Your task to perform on an android device: refresh tabs in the chrome app Image 0: 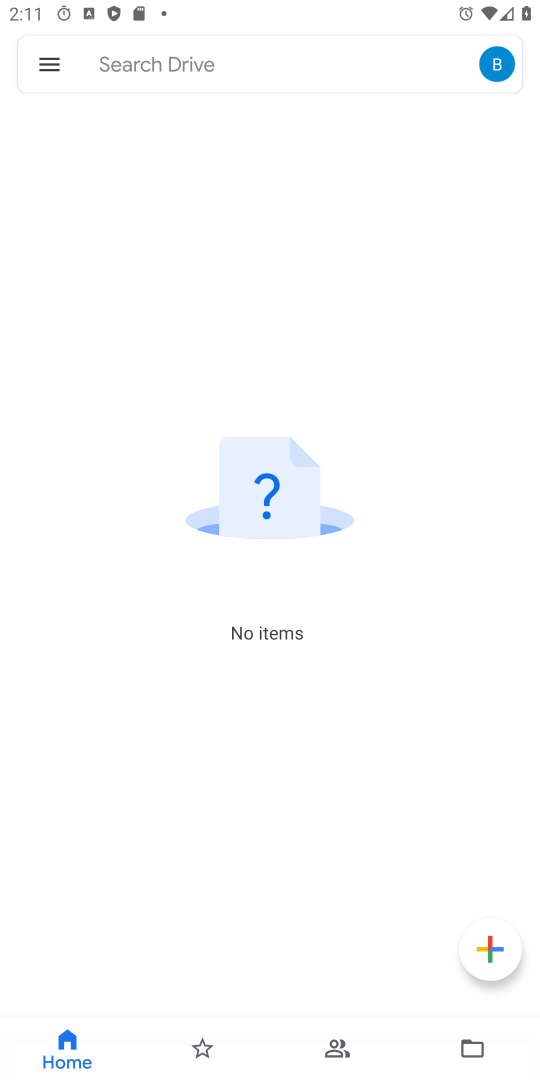
Step 0: press home button
Your task to perform on an android device: refresh tabs in the chrome app Image 1: 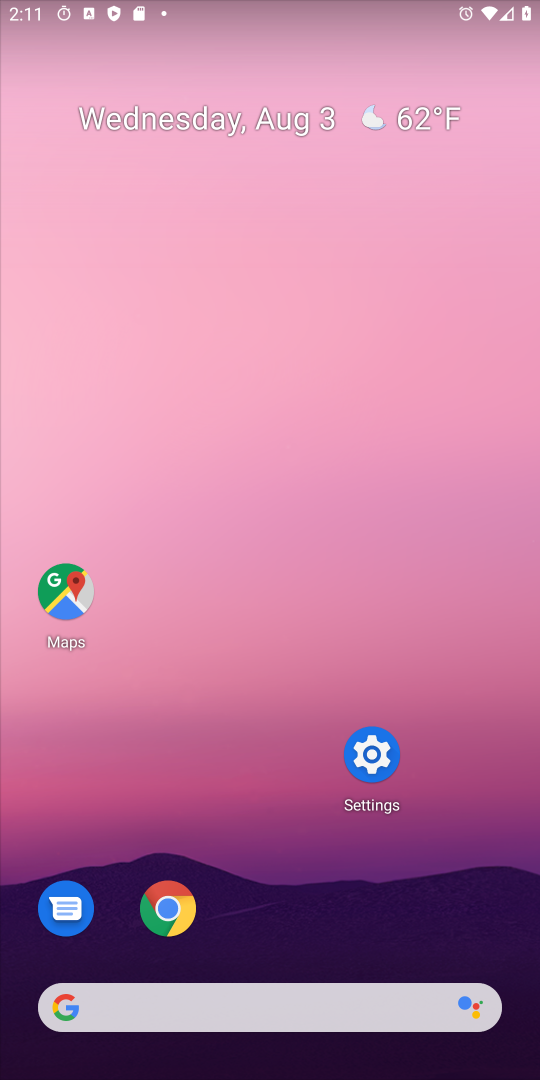
Step 1: drag from (224, 867) to (210, 192)
Your task to perform on an android device: refresh tabs in the chrome app Image 2: 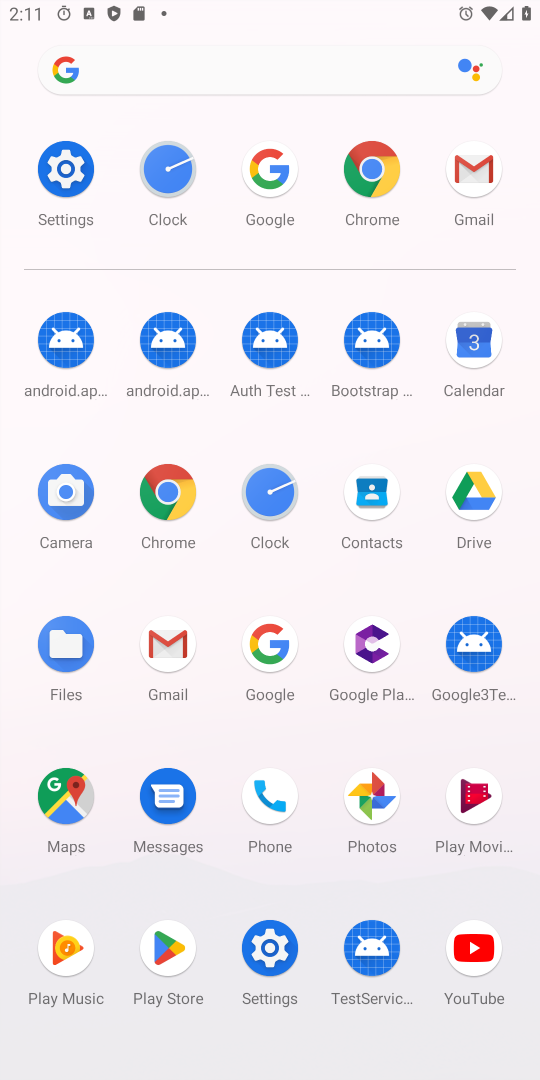
Step 2: click (165, 516)
Your task to perform on an android device: refresh tabs in the chrome app Image 3: 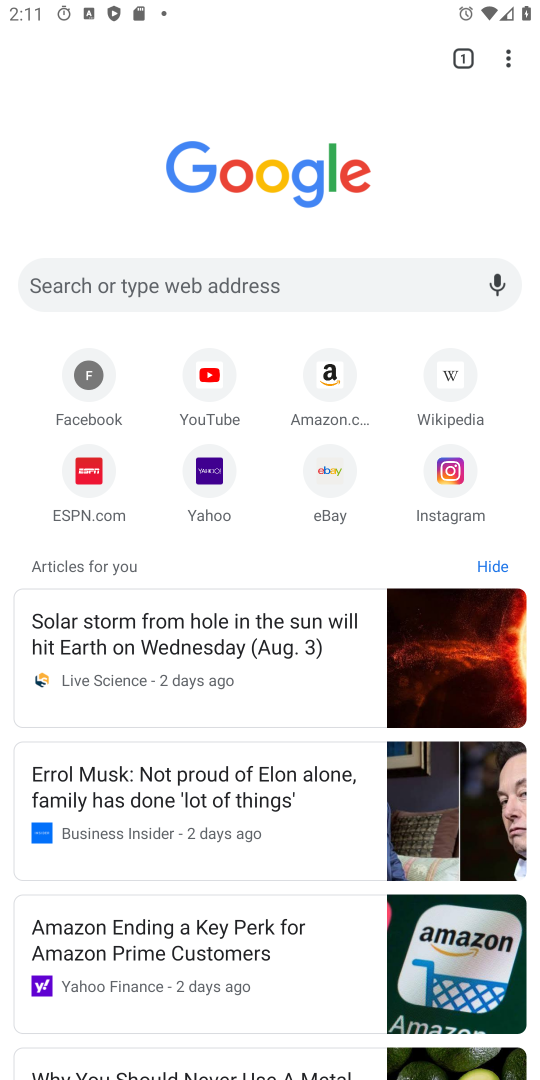
Step 3: click (462, 59)
Your task to perform on an android device: refresh tabs in the chrome app Image 4: 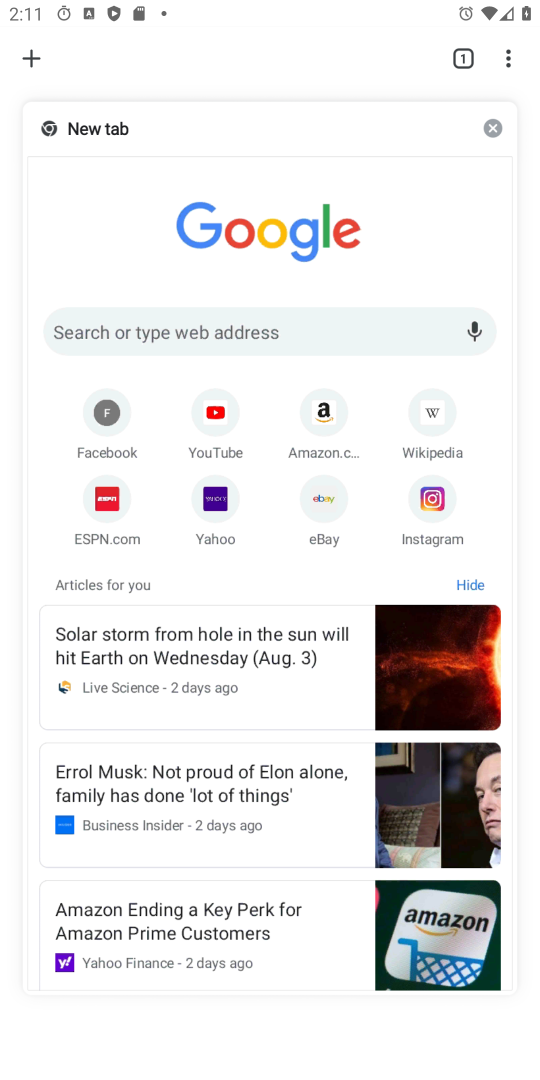
Step 4: click (511, 68)
Your task to perform on an android device: refresh tabs in the chrome app Image 5: 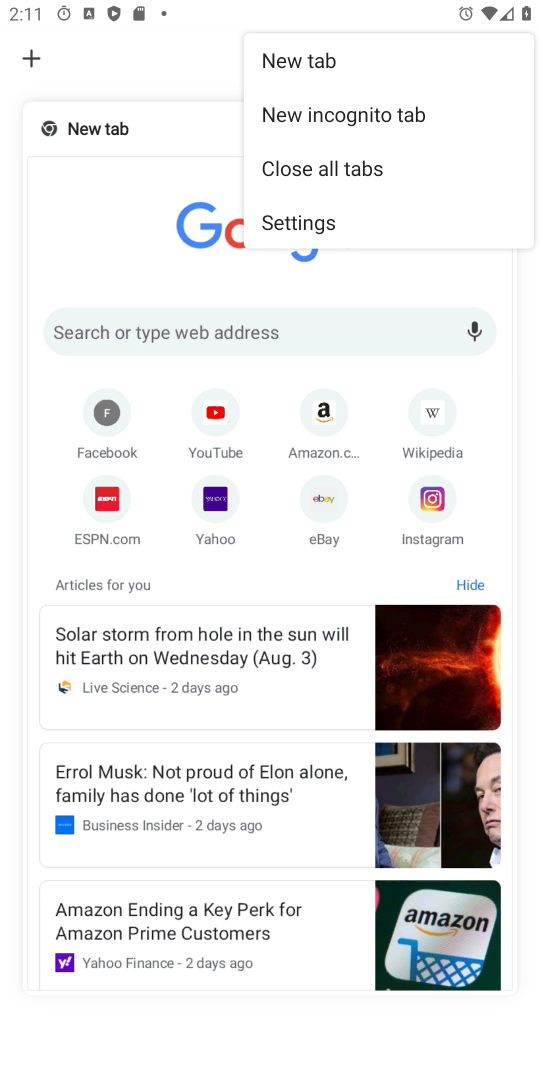
Step 5: click (175, 264)
Your task to perform on an android device: refresh tabs in the chrome app Image 6: 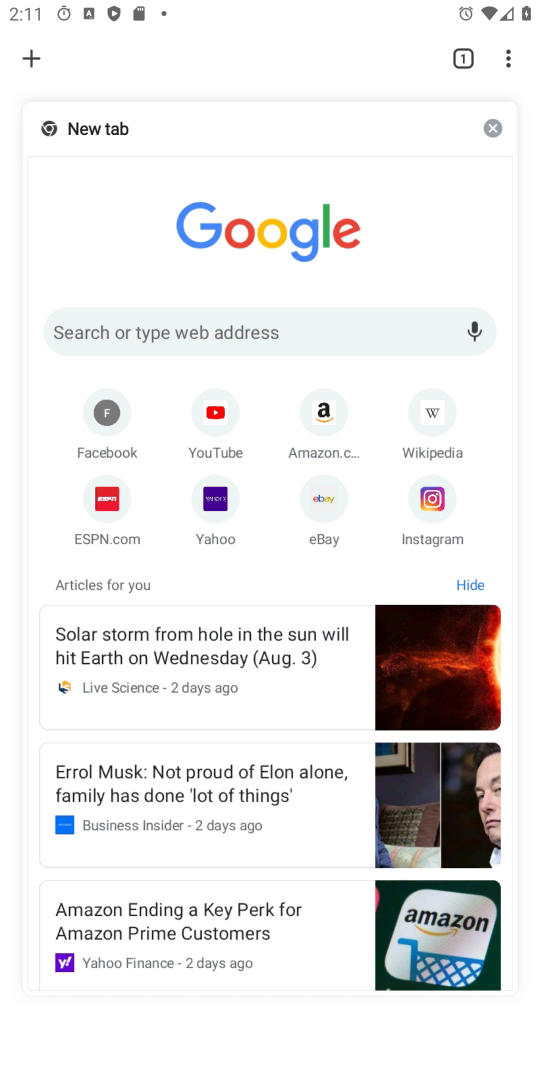
Step 6: click (504, 56)
Your task to perform on an android device: refresh tabs in the chrome app Image 7: 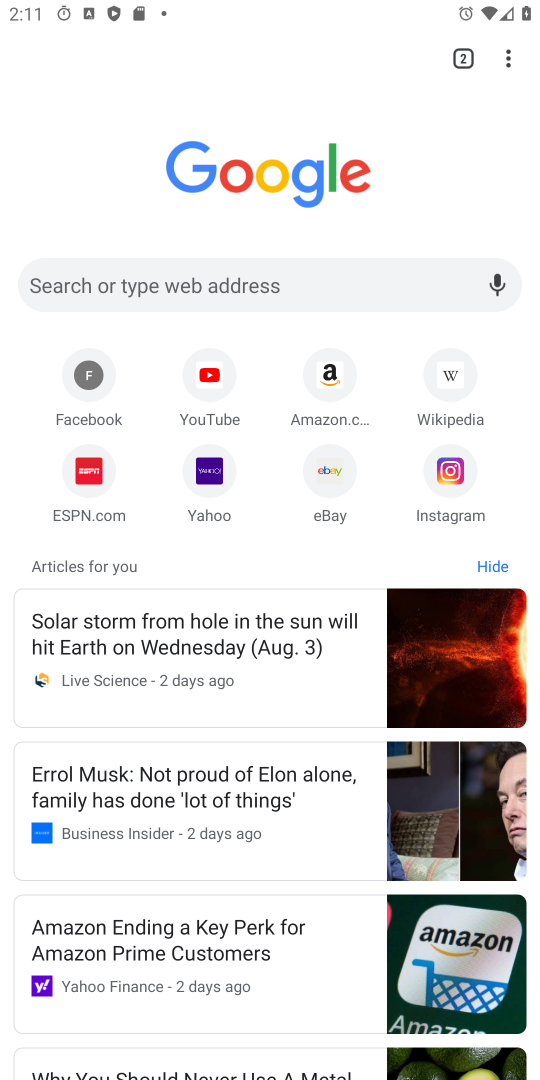
Step 7: click (500, 50)
Your task to perform on an android device: refresh tabs in the chrome app Image 8: 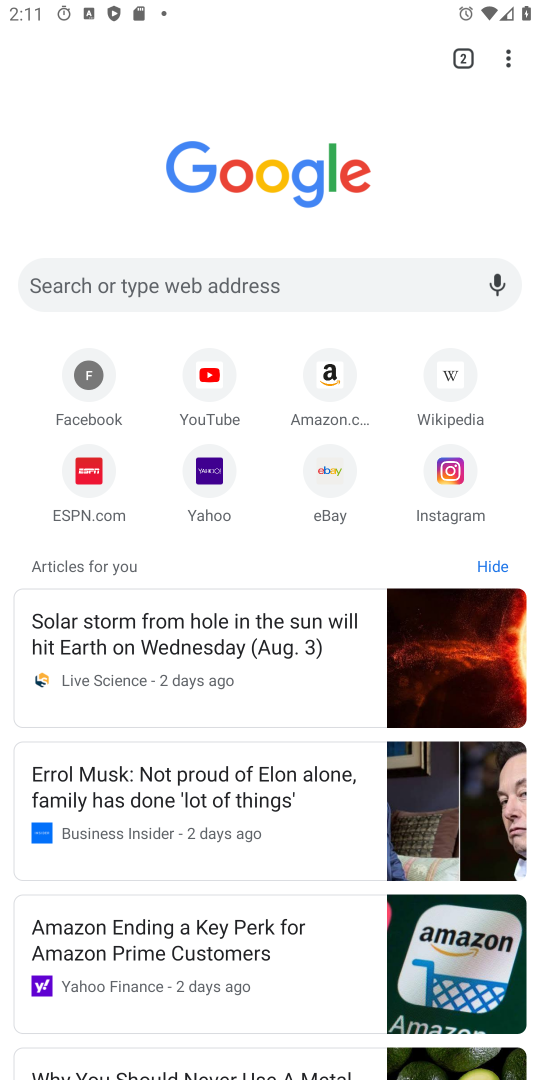
Step 8: task complete